Your task to perform on an android device: Go to eBay Image 0: 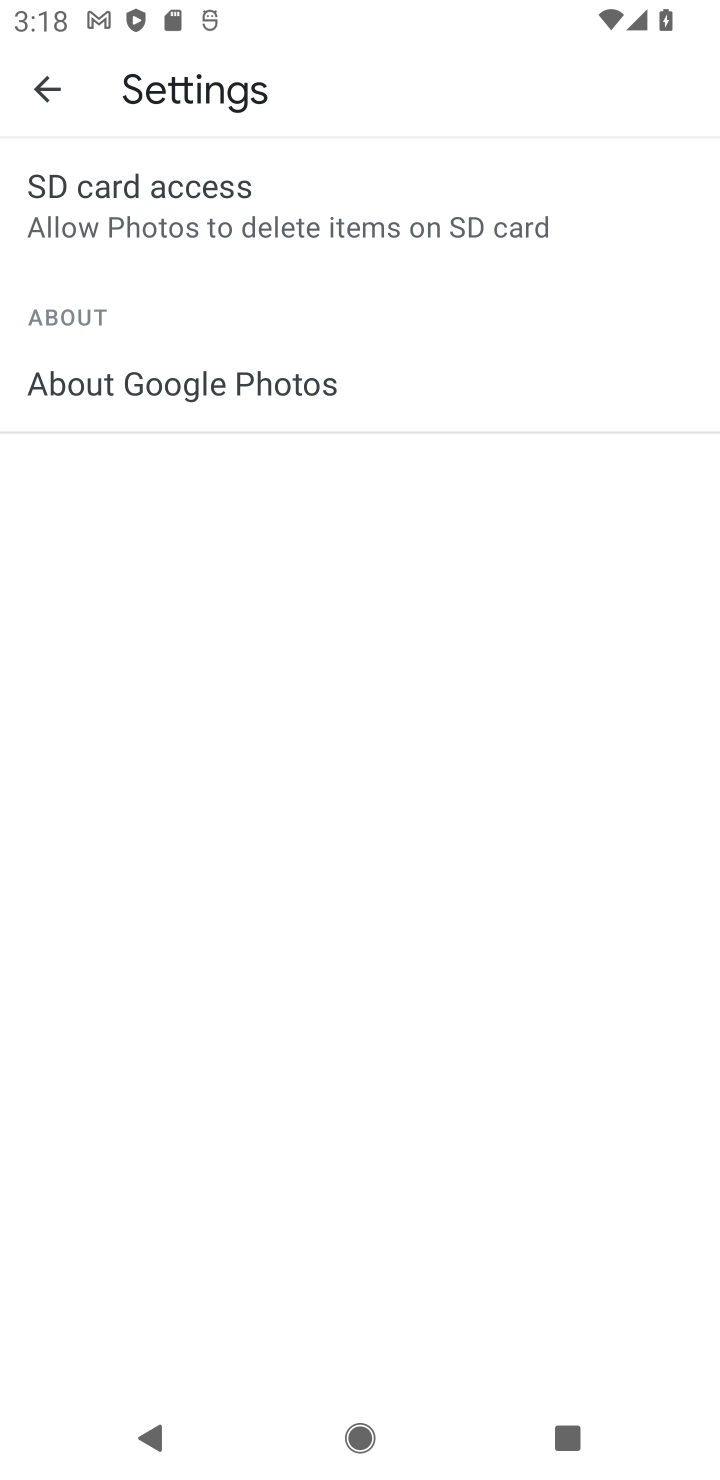
Step 0: press home button
Your task to perform on an android device: Go to eBay Image 1: 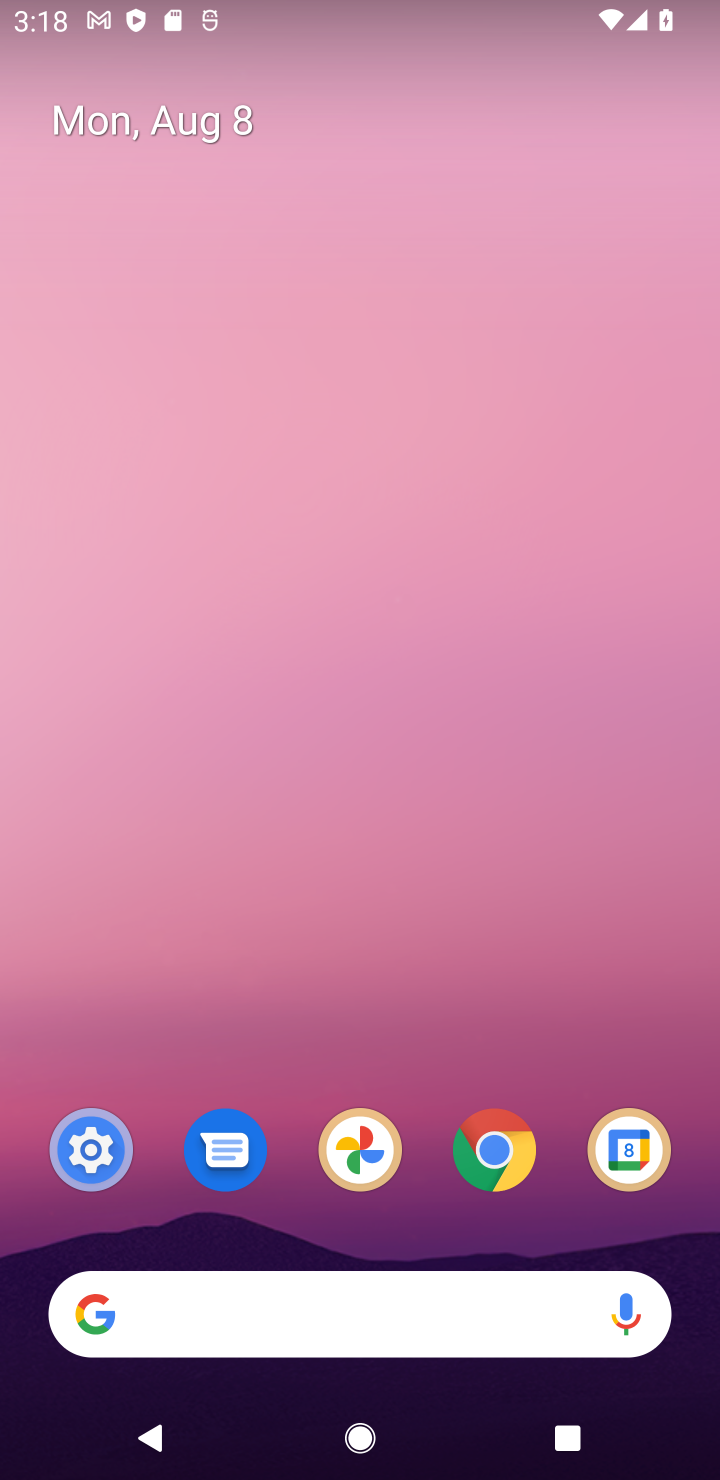
Step 1: click (476, 1154)
Your task to perform on an android device: Go to eBay Image 2: 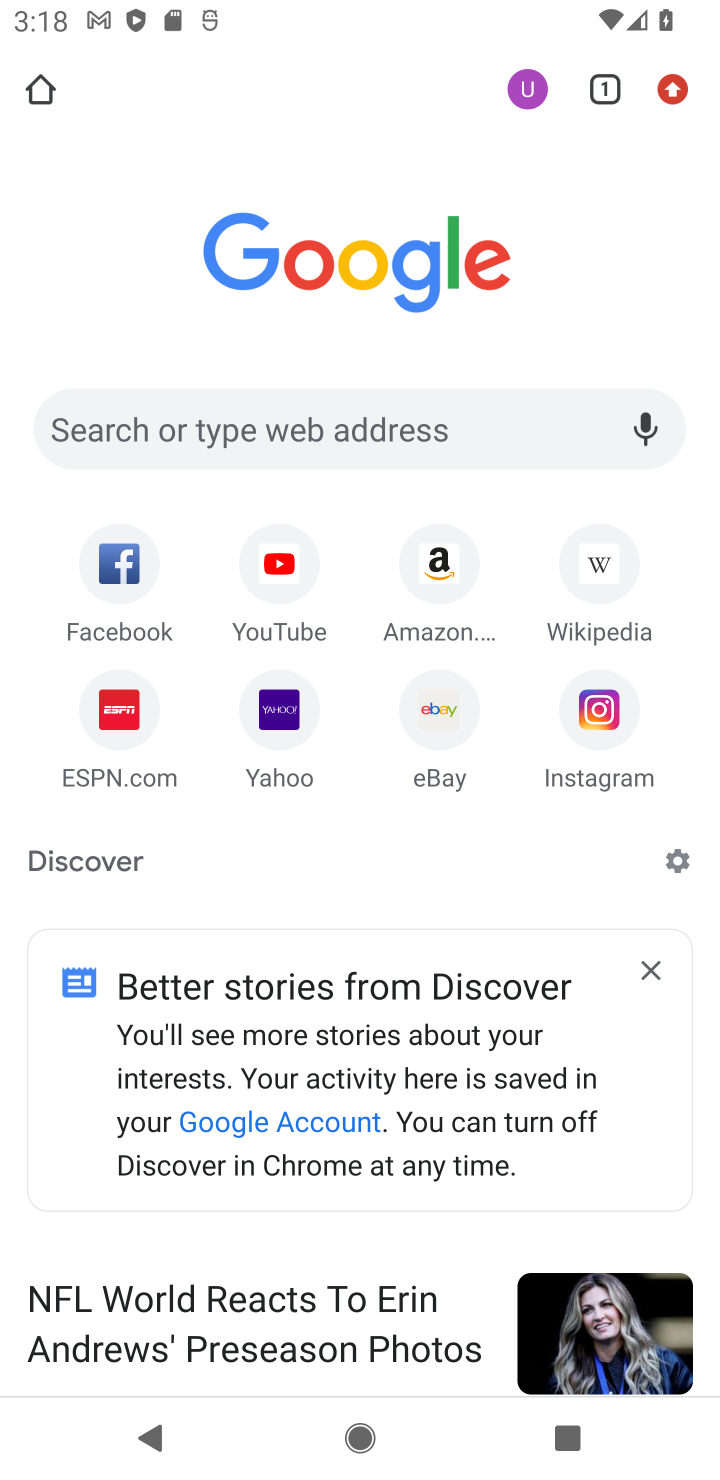
Step 2: click (408, 702)
Your task to perform on an android device: Go to eBay Image 3: 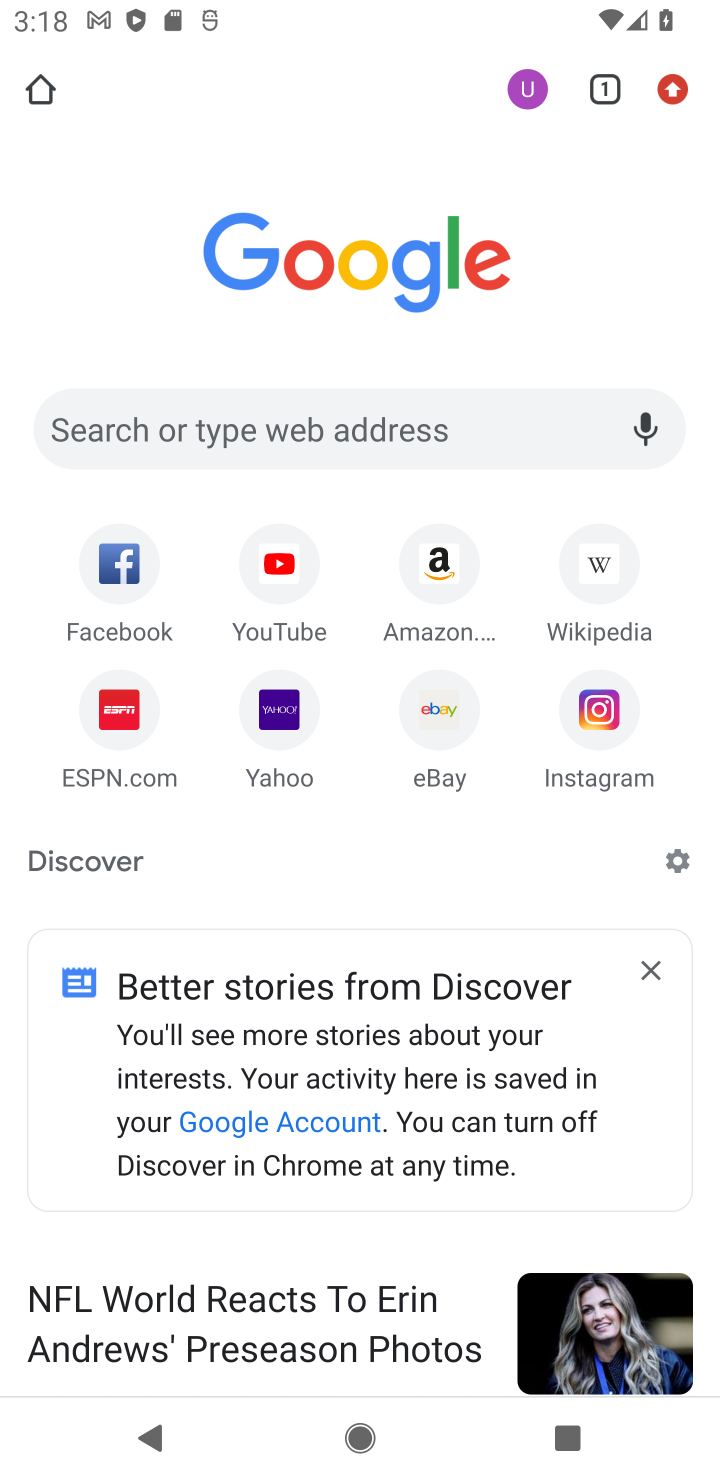
Step 3: task complete